Your task to perform on an android device: Open calendar and show me the second week of next month Image 0: 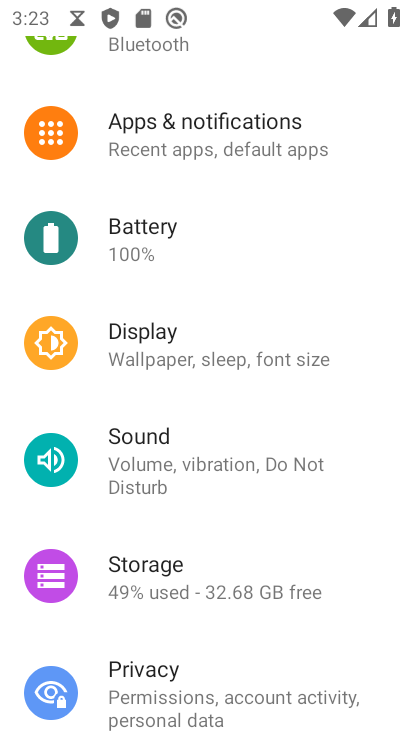
Step 0: press back button
Your task to perform on an android device: Open calendar and show me the second week of next month Image 1: 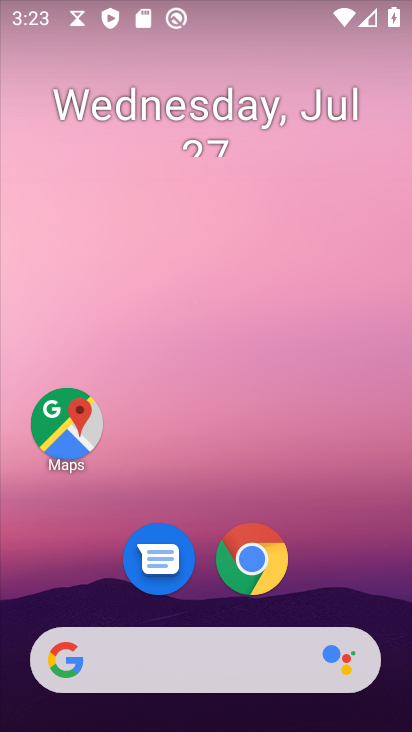
Step 1: drag from (49, 602) to (241, 3)
Your task to perform on an android device: Open calendar and show me the second week of next month Image 2: 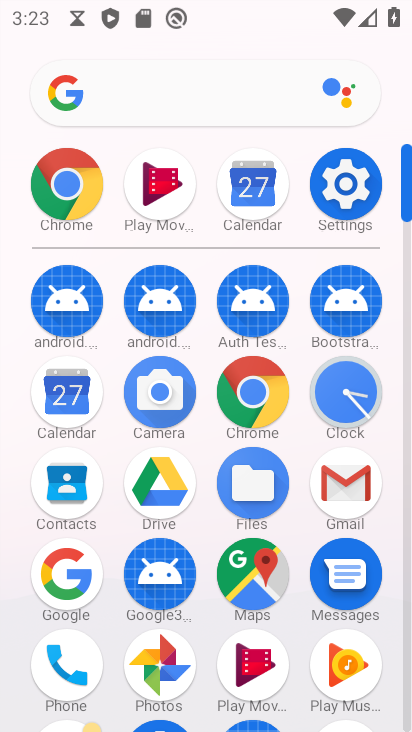
Step 2: click (55, 399)
Your task to perform on an android device: Open calendar and show me the second week of next month Image 3: 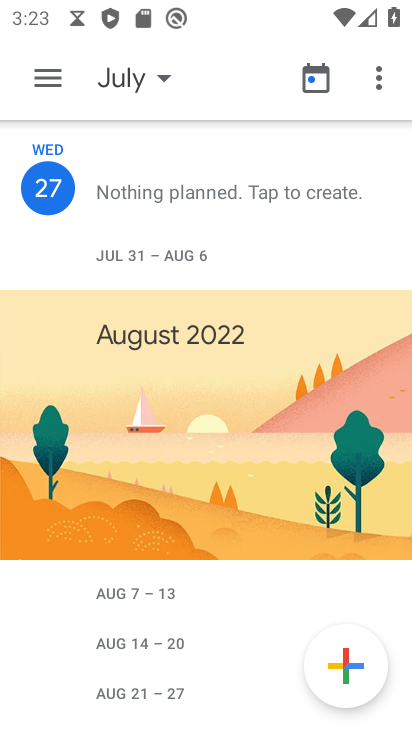
Step 3: click (151, 80)
Your task to perform on an android device: Open calendar and show me the second week of next month Image 4: 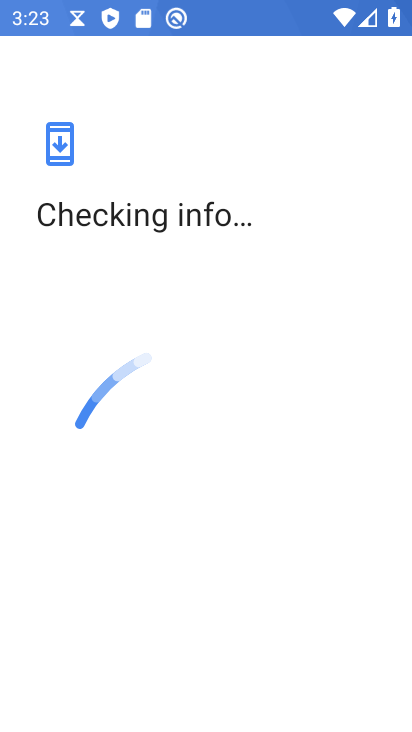
Step 4: task complete